Your task to perform on an android device: Go to calendar. Show me events next week Image 0: 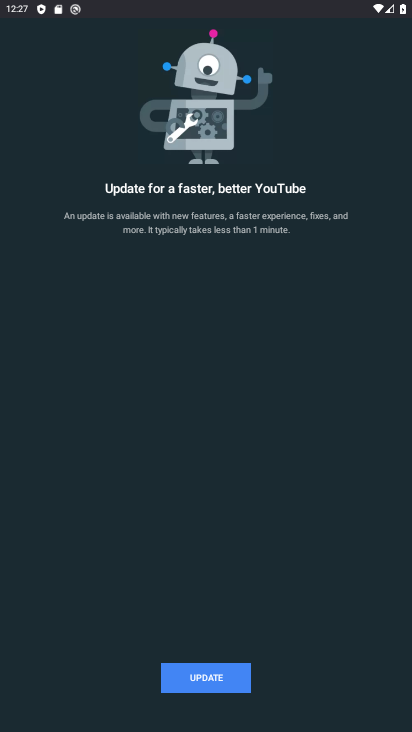
Step 0: press home button
Your task to perform on an android device: Go to calendar. Show me events next week Image 1: 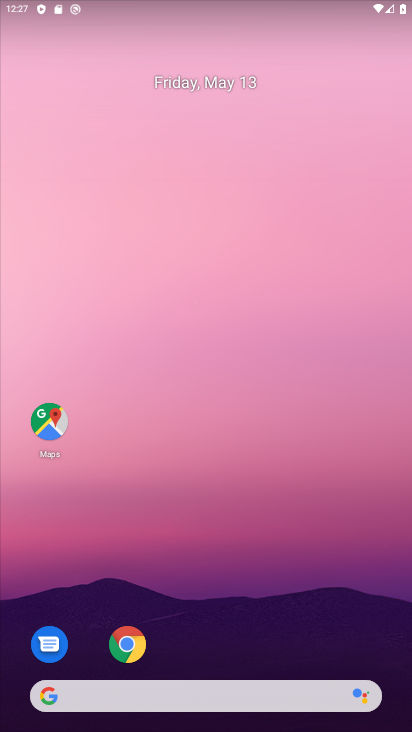
Step 1: click (202, 73)
Your task to perform on an android device: Go to calendar. Show me events next week Image 2: 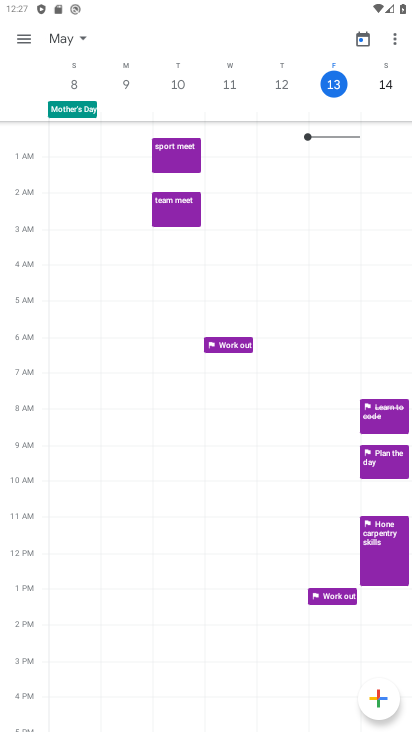
Step 2: click (76, 40)
Your task to perform on an android device: Go to calendar. Show me events next week Image 3: 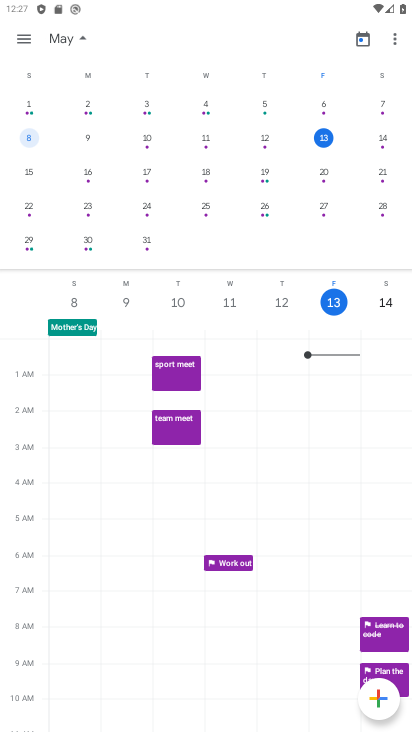
Step 3: drag from (344, 181) to (43, 218)
Your task to perform on an android device: Go to calendar. Show me events next week Image 4: 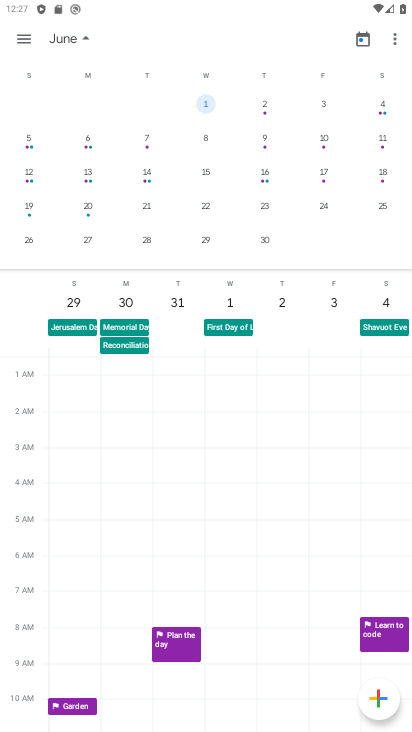
Step 4: drag from (80, 161) to (391, 153)
Your task to perform on an android device: Go to calendar. Show me events next week Image 5: 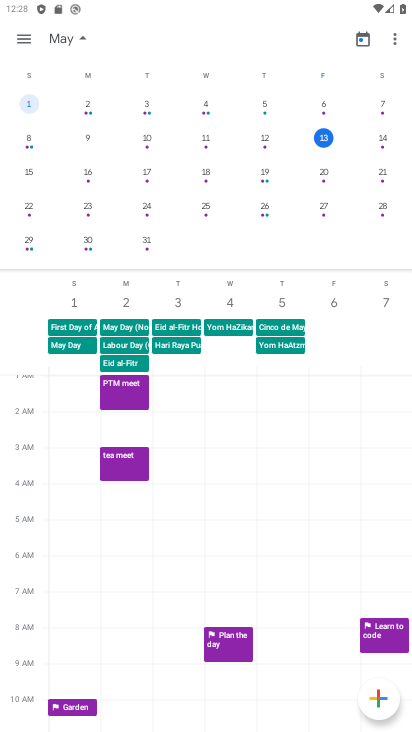
Step 5: click (318, 175)
Your task to perform on an android device: Go to calendar. Show me events next week Image 6: 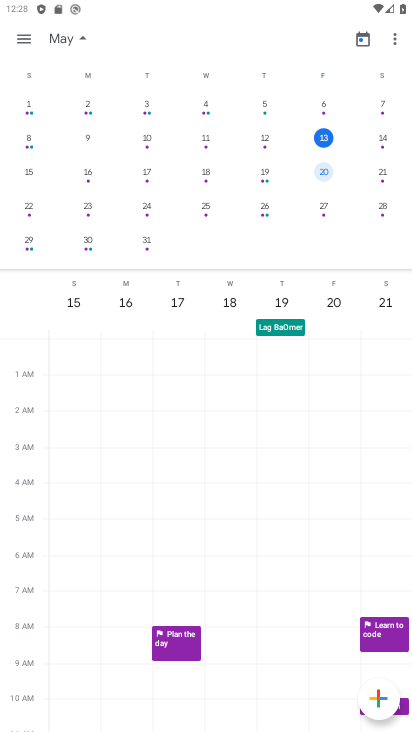
Step 6: task complete